Your task to perform on an android device: Go to display settings Image 0: 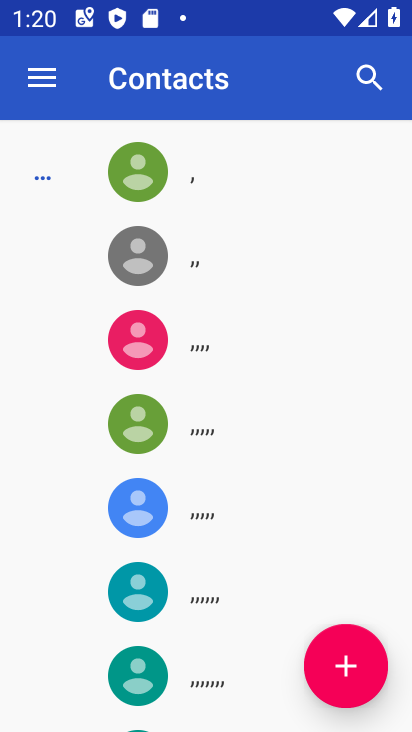
Step 0: press home button
Your task to perform on an android device: Go to display settings Image 1: 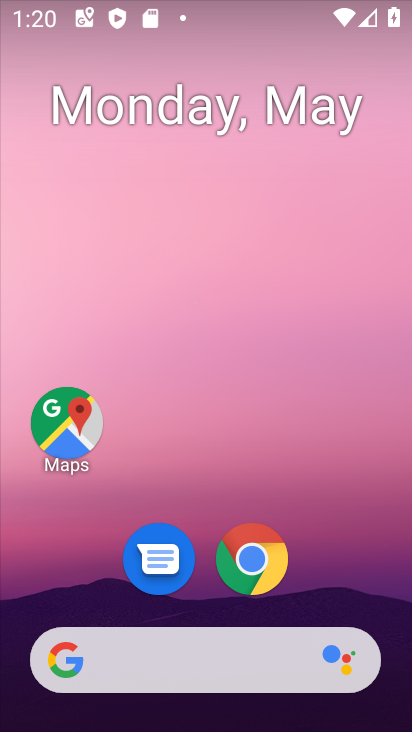
Step 1: drag from (206, 723) to (196, 37)
Your task to perform on an android device: Go to display settings Image 2: 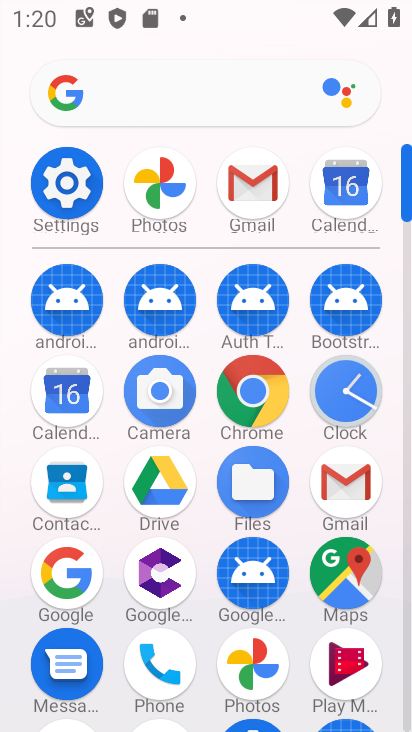
Step 2: click (79, 192)
Your task to perform on an android device: Go to display settings Image 3: 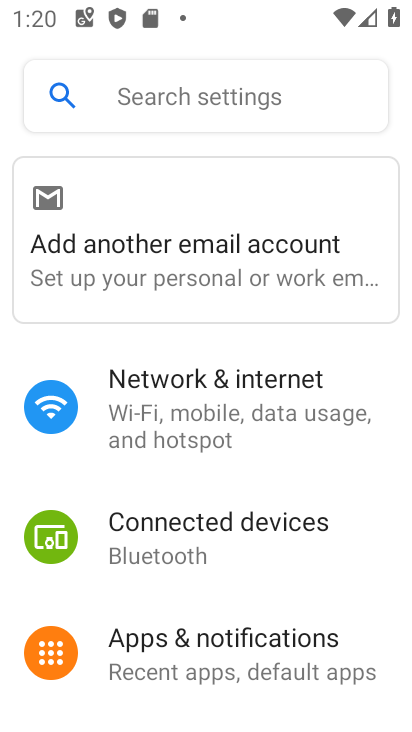
Step 3: drag from (328, 591) to (296, 189)
Your task to perform on an android device: Go to display settings Image 4: 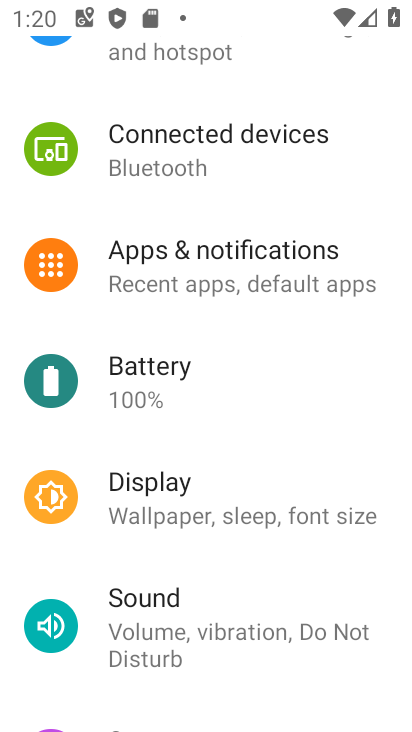
Step 4: click (274, 479)
Your task to perform on an android device: Go to display settings Image 5: 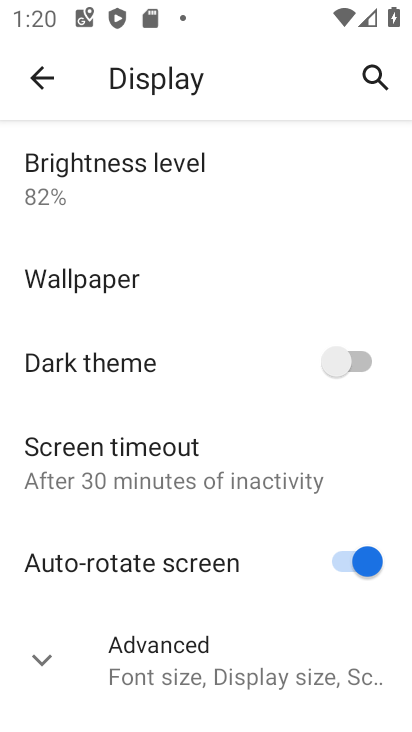
Step 5: task complete